Your task to perform on an android device: open app "Adobe Acrobat Reader" (install if not already installed) Image 0: 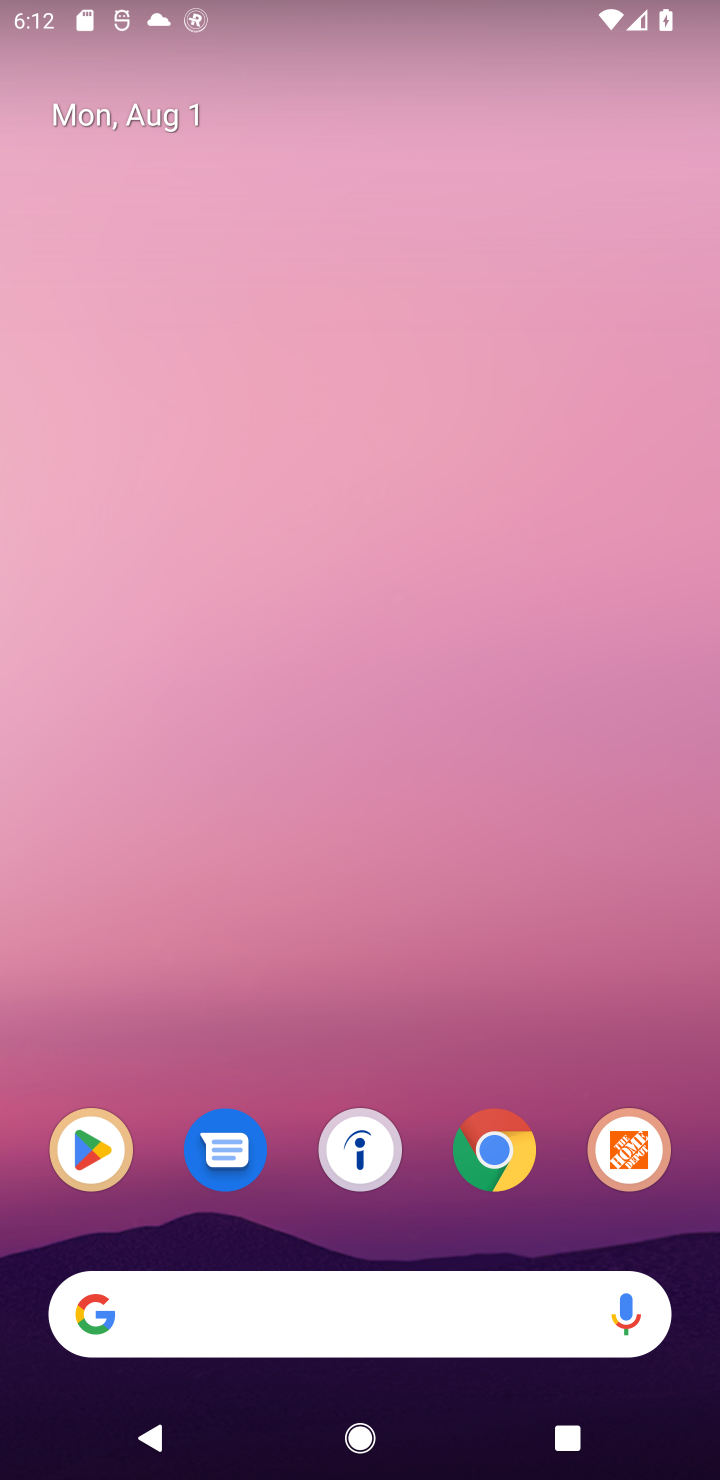
Step 0: task complete